Your task to perform on an android device: Go to Reddit.com Image 0: 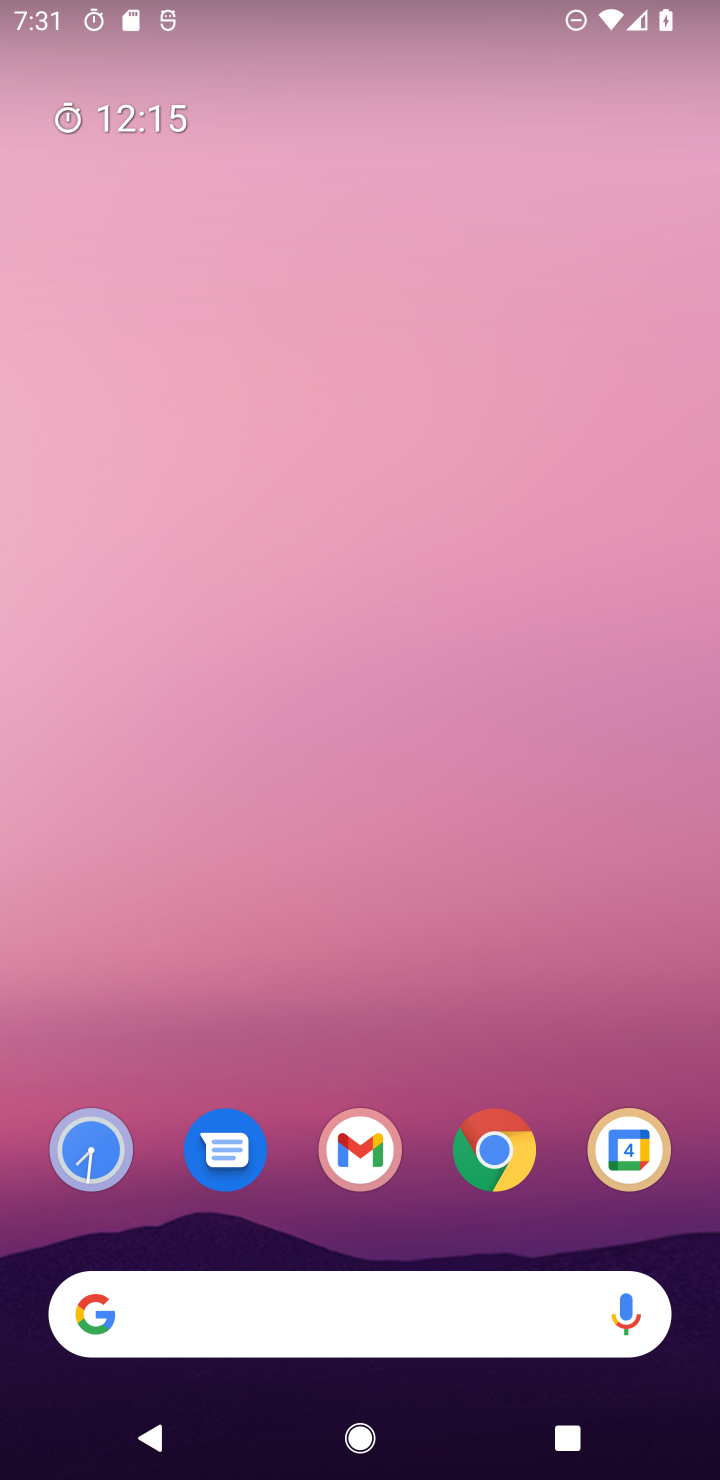
Step 0: drag from (353, 915) to (558, 21)
Your task to perform on an android device: Go to Reddit.com Image 1: 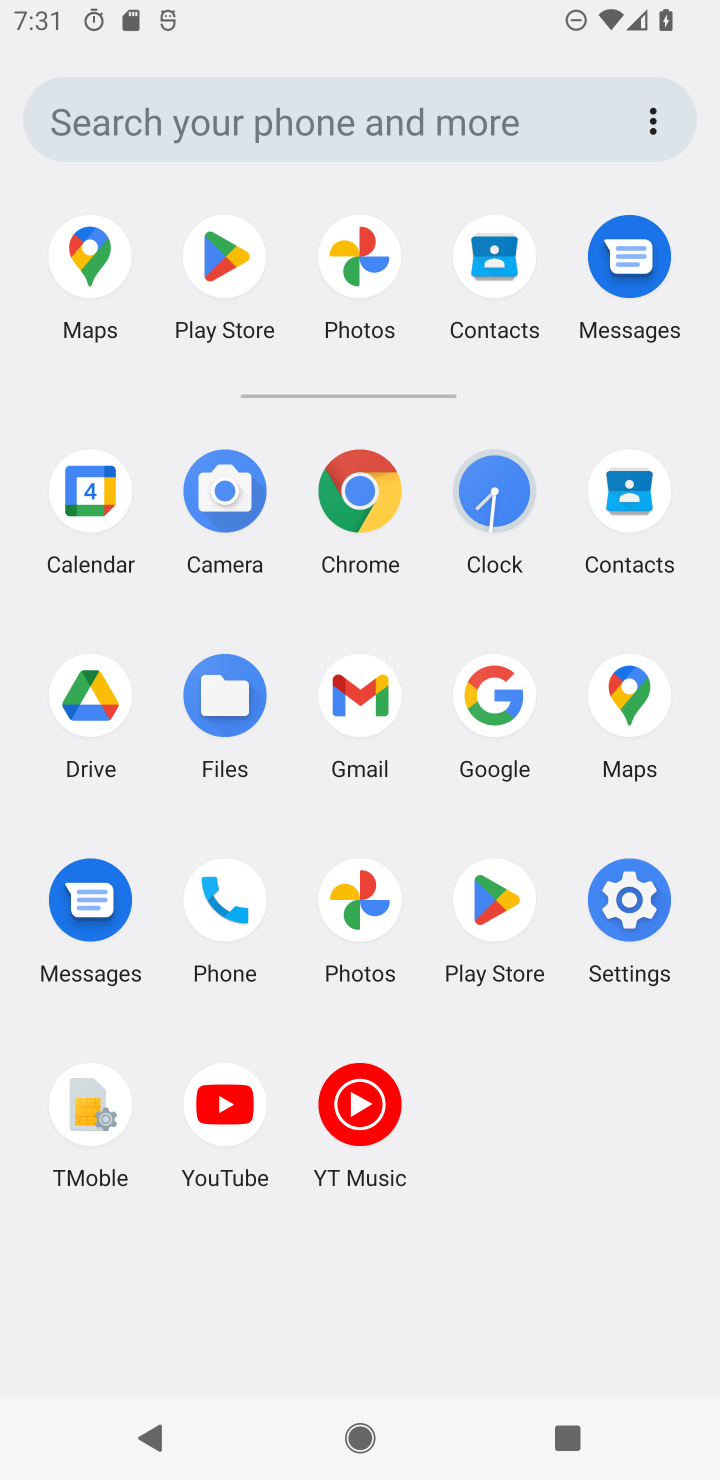
Step 1: click (373, 489)
Your task to perform on an android device: Go to Reddit.com Image 2: 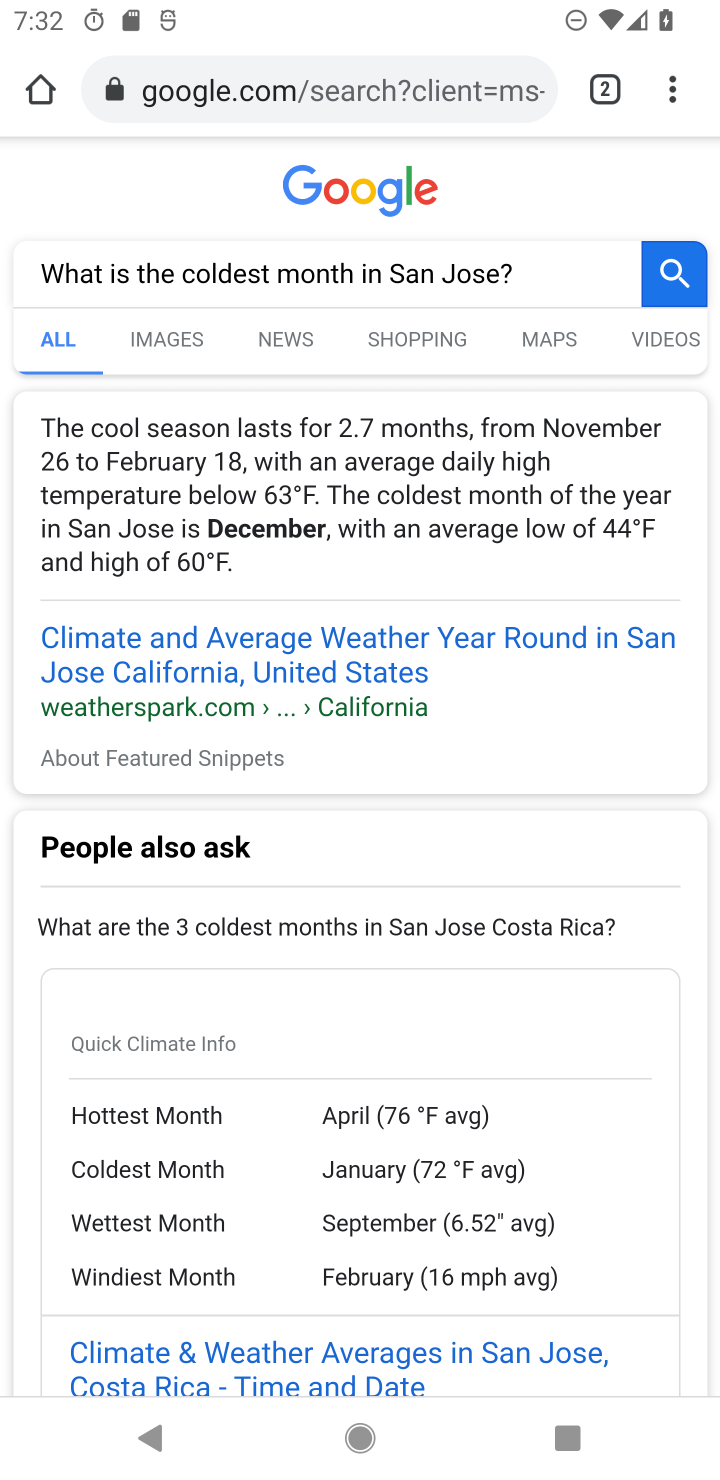
Step 2: click (330, 98)
Your task to perform on an android device: Go to Reddit.com Image 3: 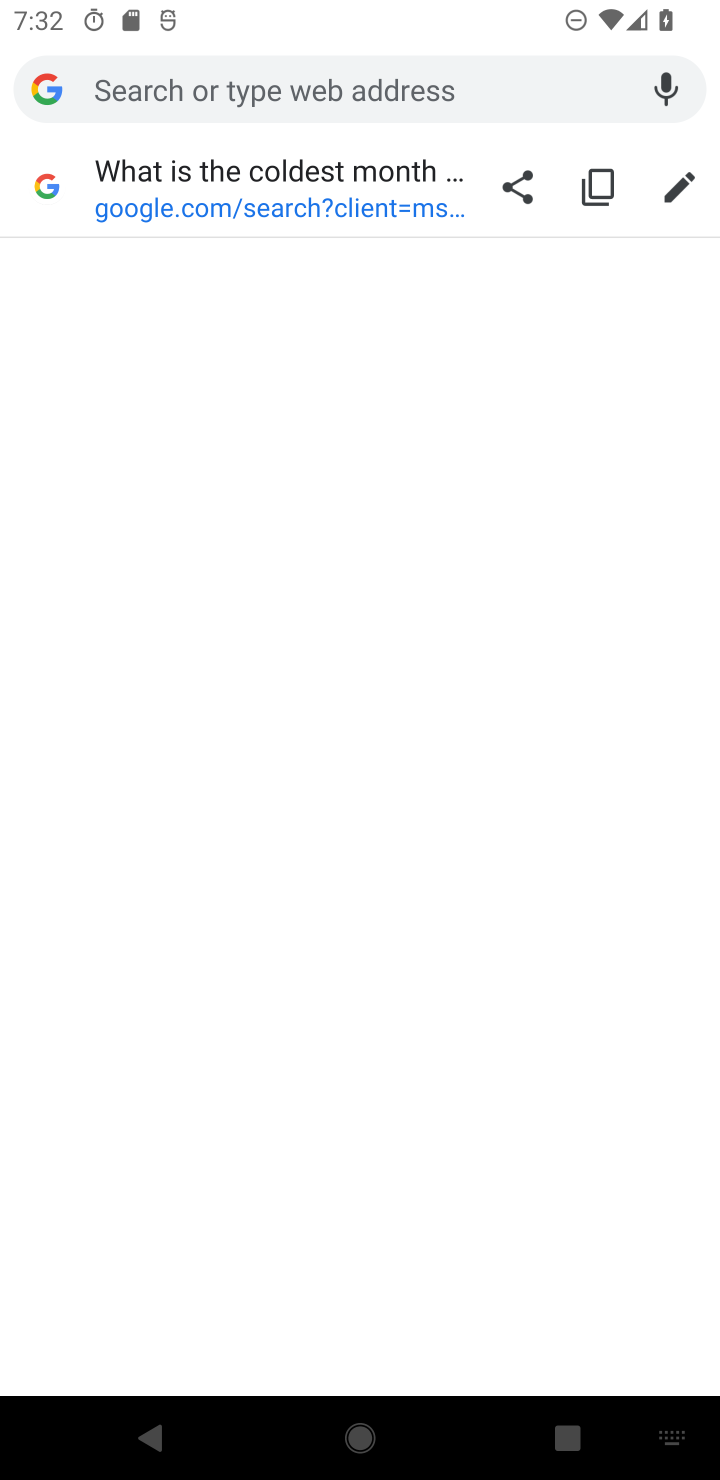
Step 3: type "reddit.com"
Your task to perform on an android device: Go to Reddit.com Image 4: 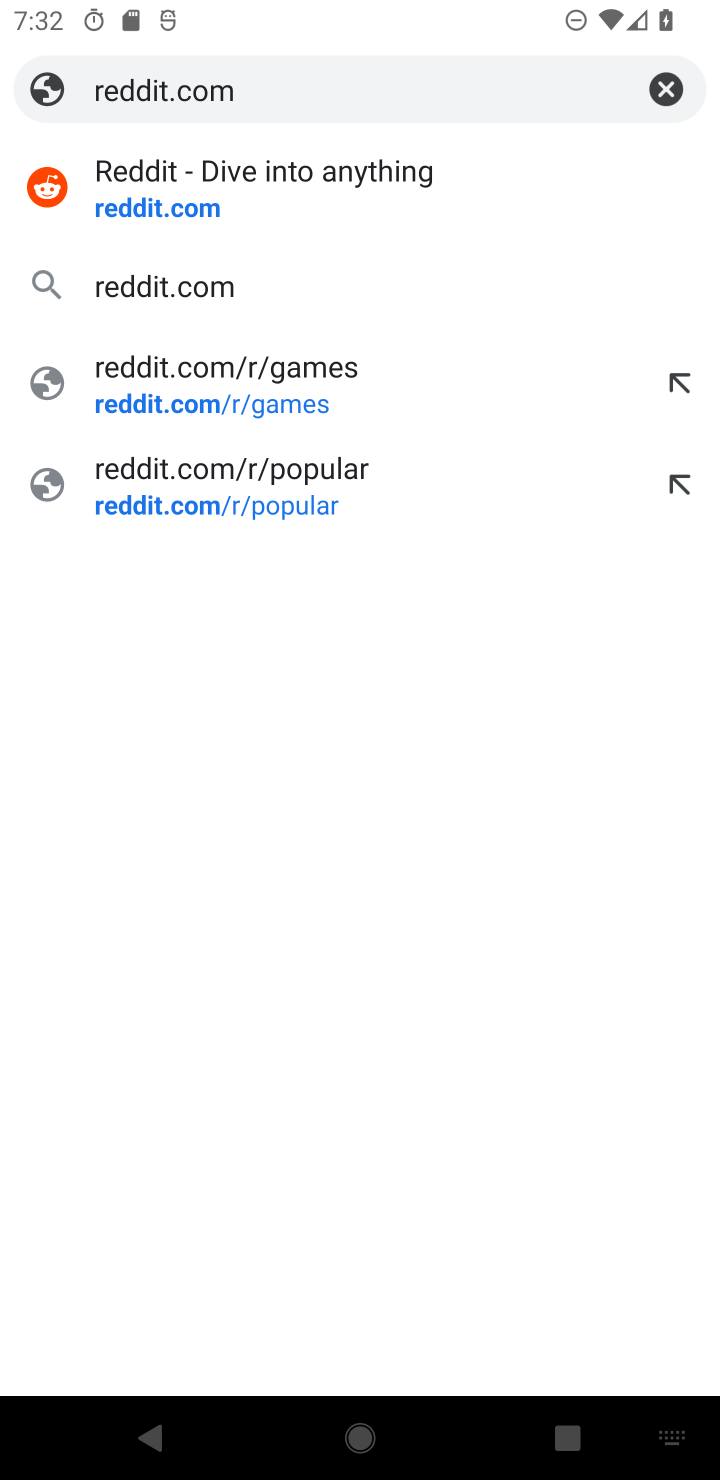
Step 4: click (230, 198)
Your task to perform on an android device: Go to Reddit.com Image 5: 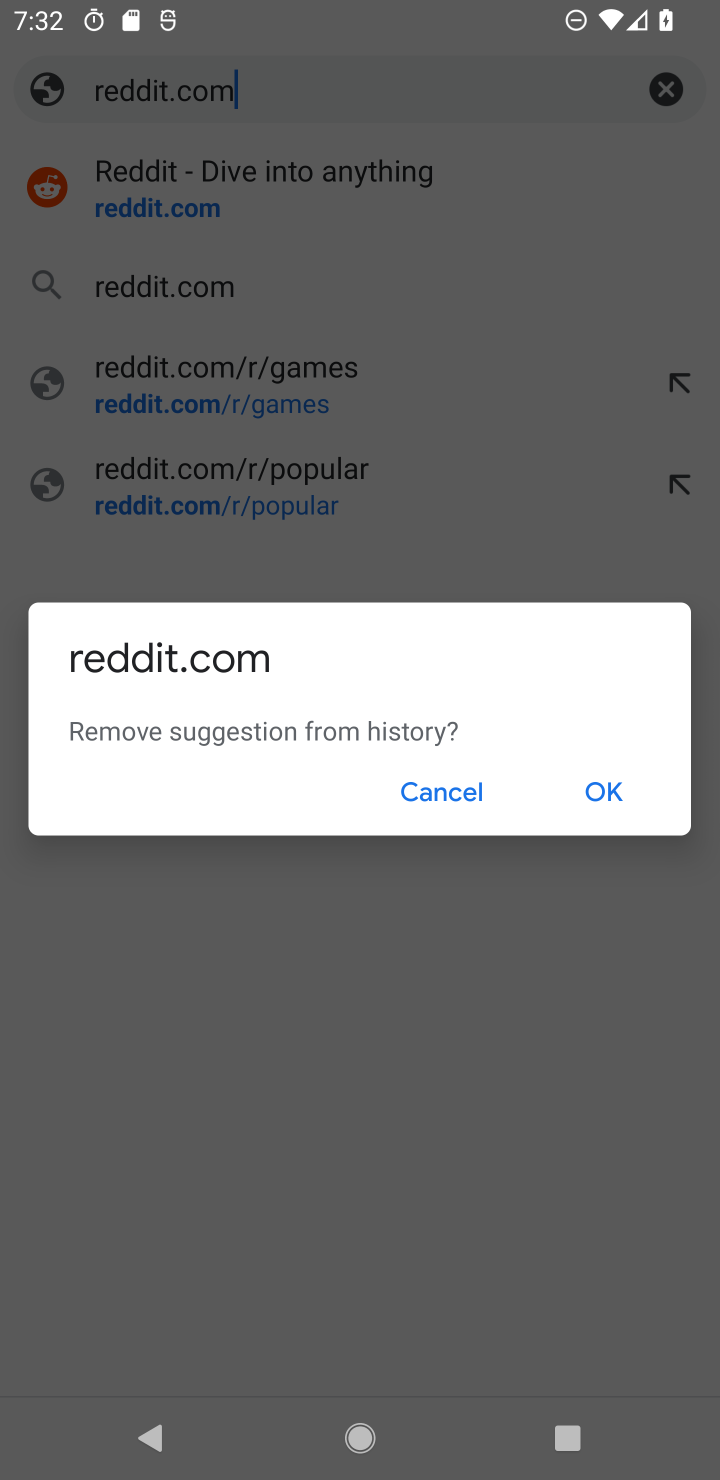
Step 5: click (600, 783)
Your task to perform on an android device: Go to Reddit.com Image 6: 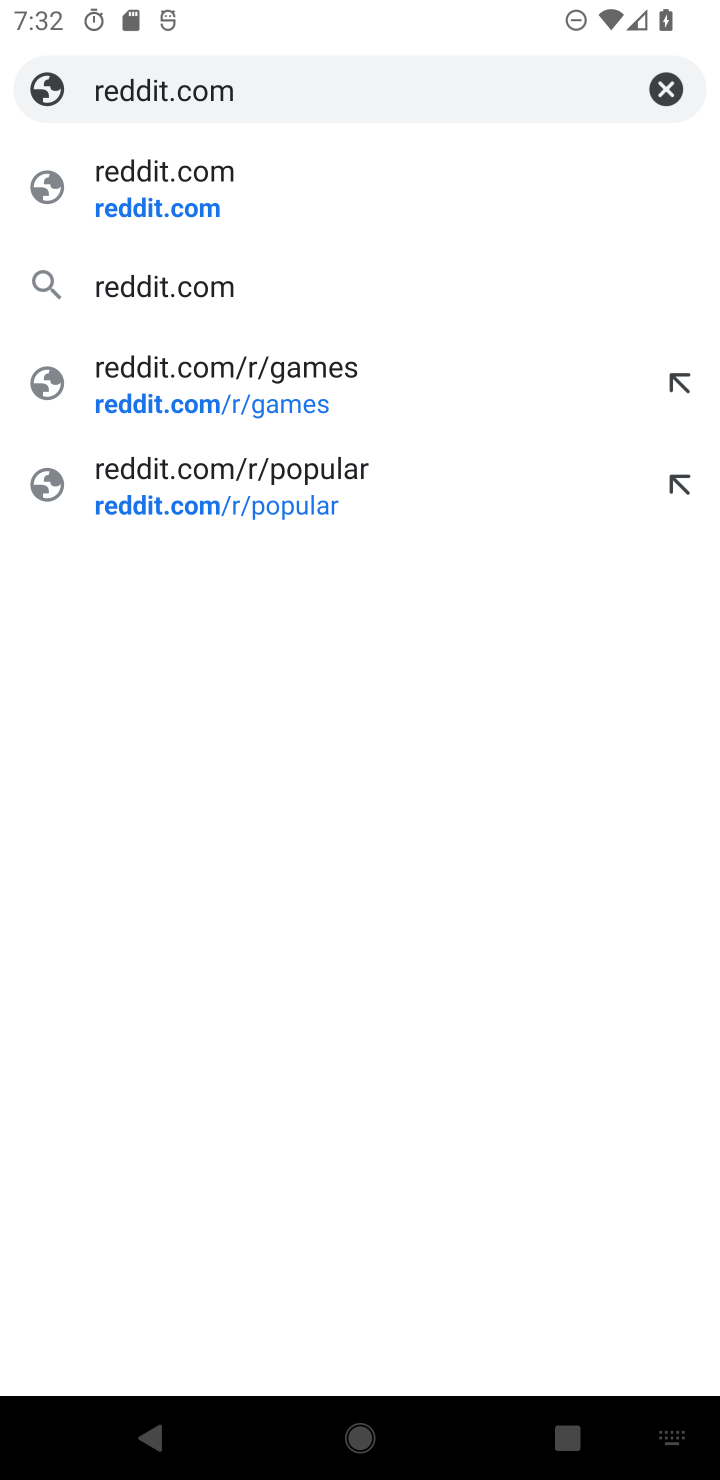
Step 6: click (269, 199)
Your task to perform on an android device: Go to Reddit.com Image 7: 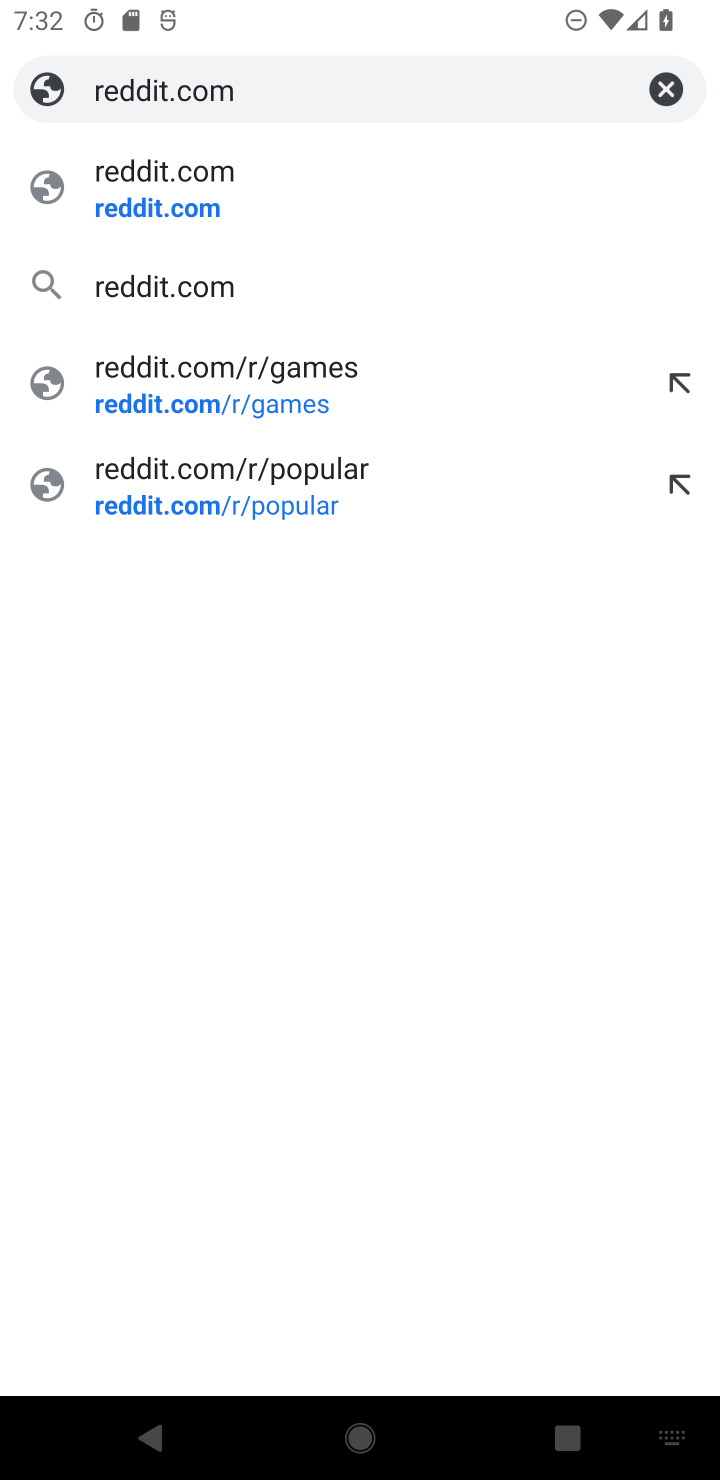
Step 7: click (279, 176)
Your task to perform on an android device: Go to Reddit.com Image 8: 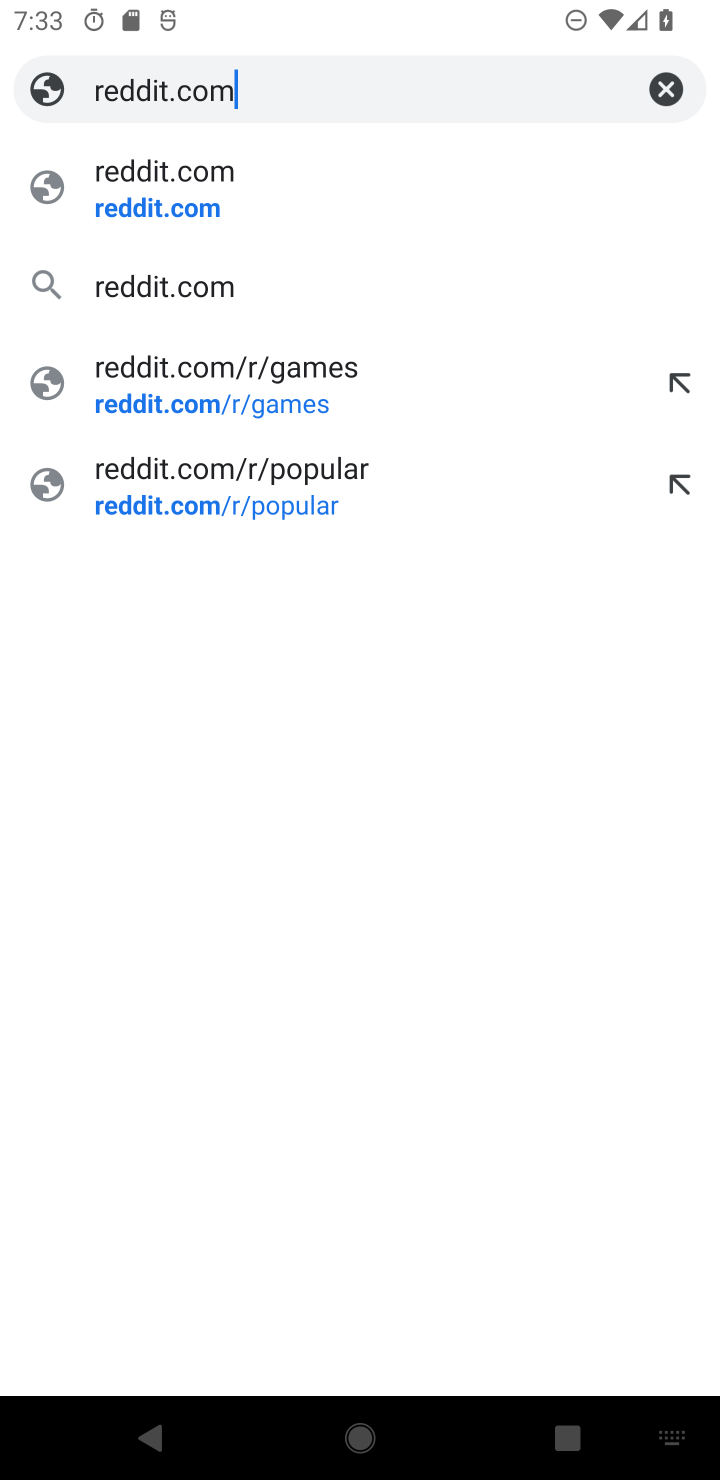
Step 8: click (255, 216)
Your task to perform on an android device: Go to Reddit.com Image 9: 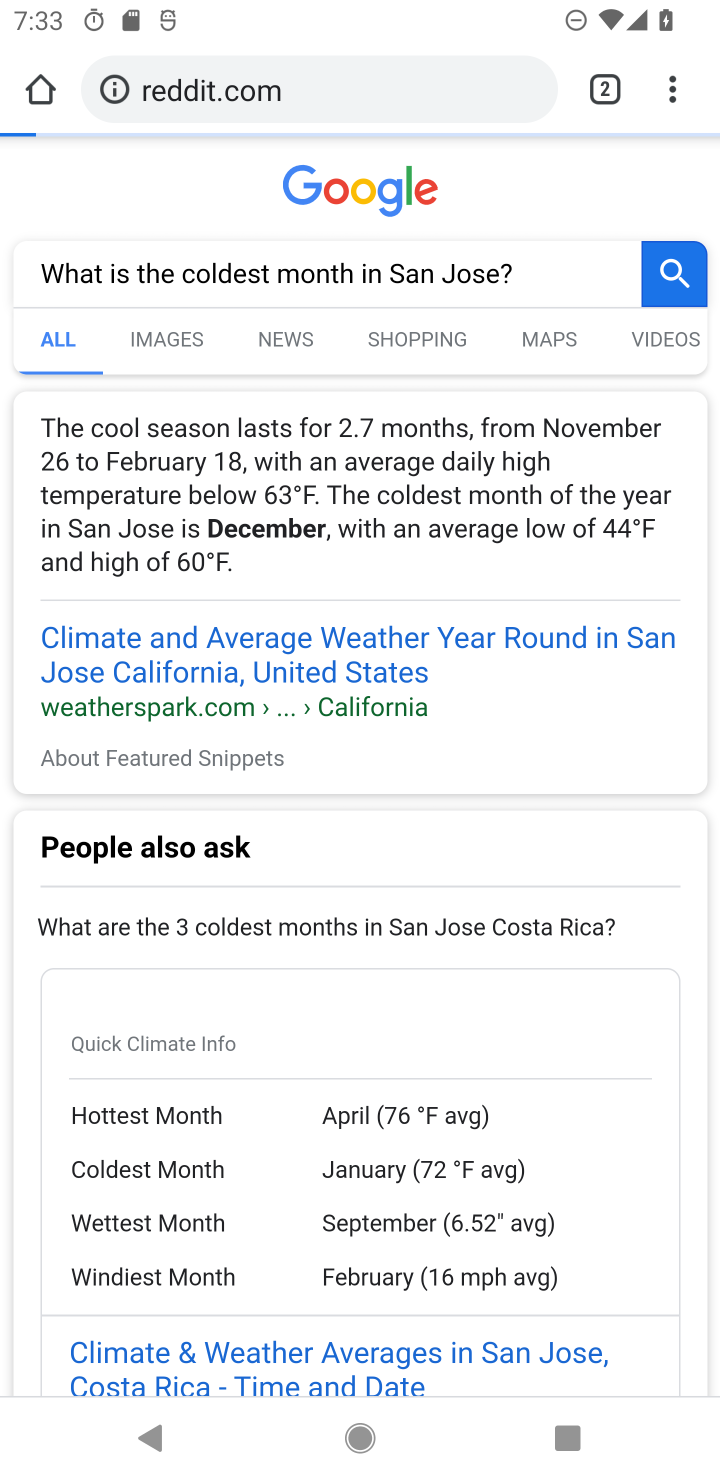
Step 9: click (186, 203)
Your task to perform on an android device: Go to Reddit.com Image 10: 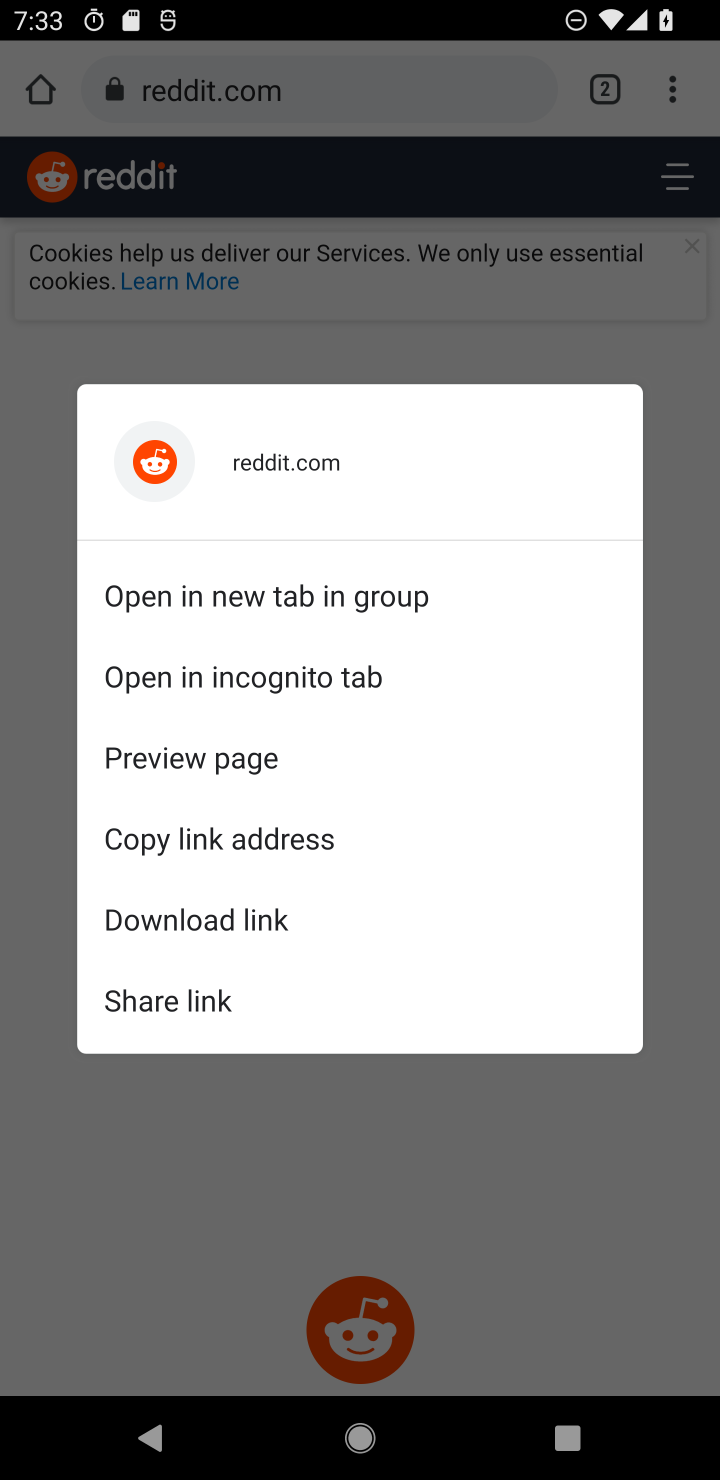
Step 10: task complete